Your task to perform on an android device: Open Youtube and go to the subscriptions tab Image 0: 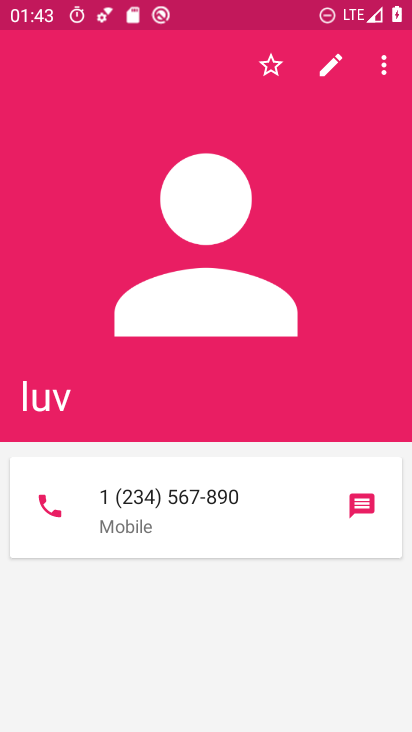
Step 0: press home button
Your task to perform on an android device: Open Youtube and go to the subscriptions tab Image 1: 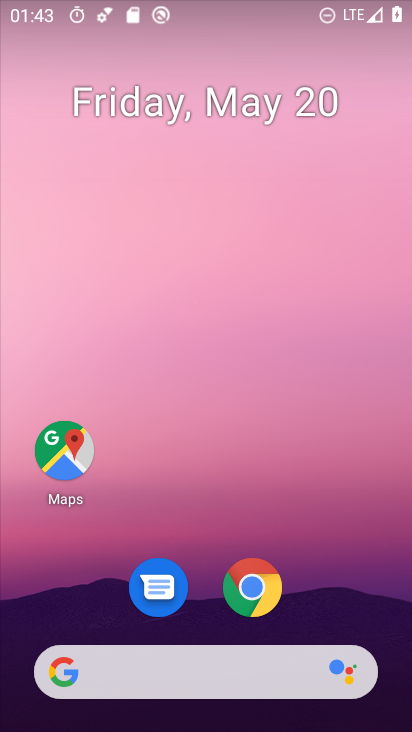
Step 1: drag from (389, 584) to (389, 265)
Your task to perform on an android device: Open Youtube and go to the subscriptions tab Image 2: 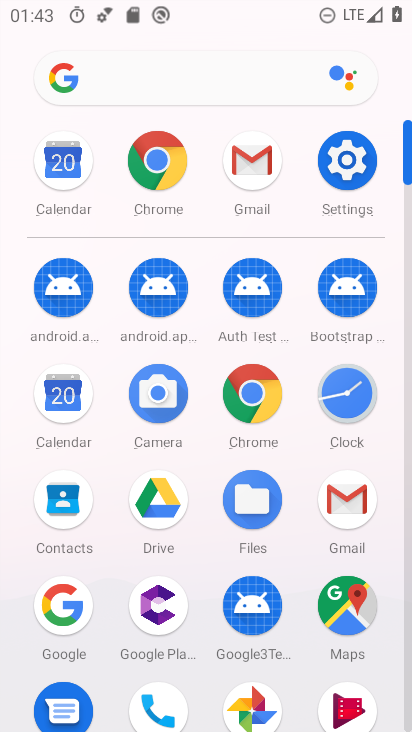
Step 2: drag from (390, 614) to (383, 307)
Your task to perform on an android device: Open Youtube and go to the subscriptions tab Image 3: 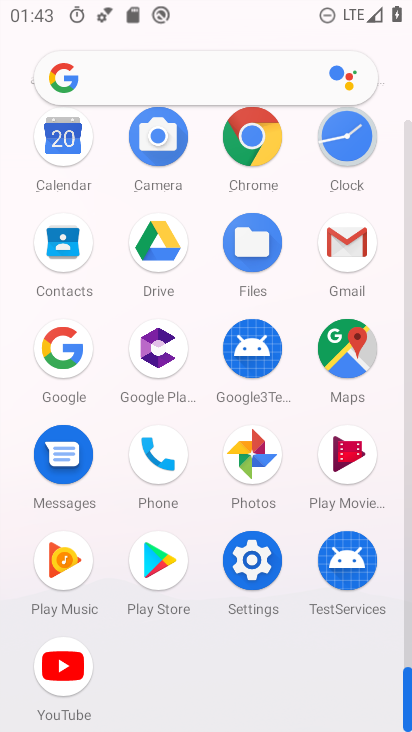
Step 3: click (65, 677)
Your task to perform on an android device: Open Youtube and go to the subscriptions tab Image 4: 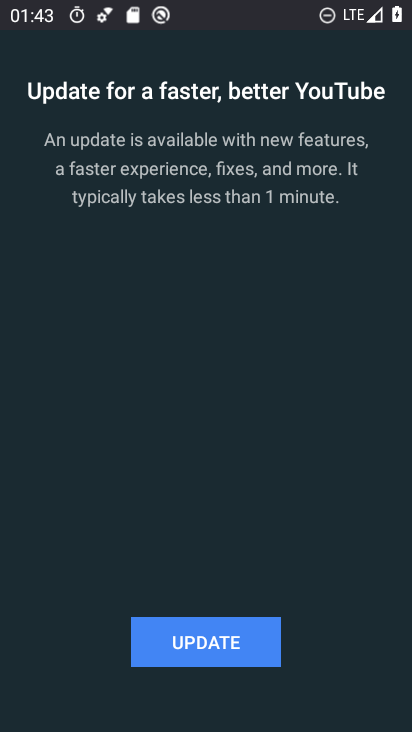
Step 4: click (178, 667)
Your task to perform on an android device: Open Youtube and go to the subscriptions tab Image 5: 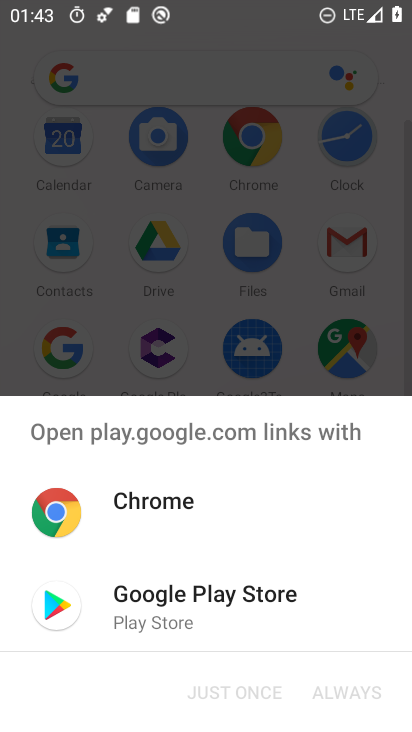
Step 5: click (172, 608)
Your task to perform on an android device: Open Youtube and go to the subscriptions tab Image 6: 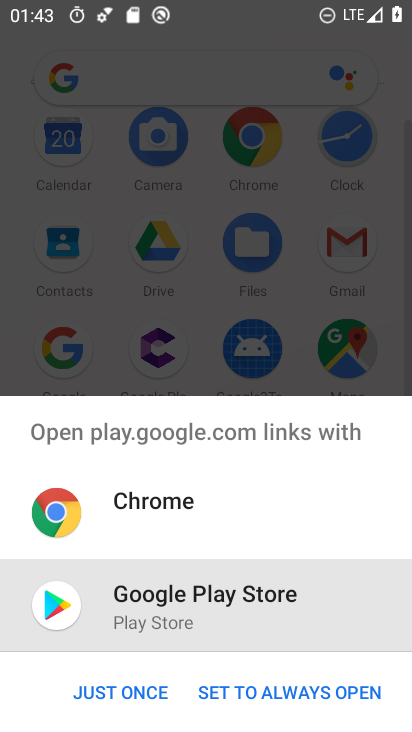
Step 6: click (128, 705)
Your task to perform on an android device: Open Youtube and go to the subscriptions tab Image 7: 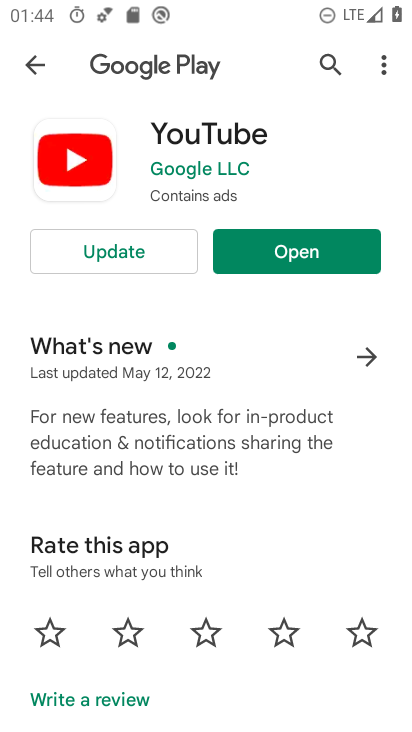
Step 7: click (138, 246)
Your task to perform on an android device: Open Youtube and go to the subscriptions tab Image 8: 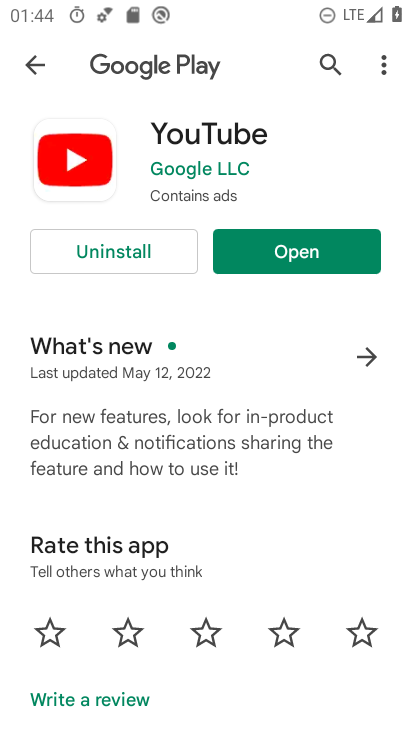
Step 8: click (327, 250)
Your task to perform on an android device: Open Youtube and go to the subscriptions tab Image 9: 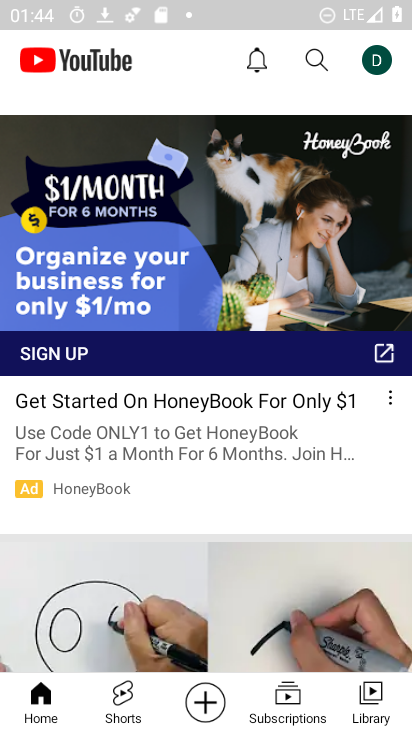
Step 9: click (305, 705)
Your task to perform on an android device: Open Youtube and go to the subscriptions tab Image 10: 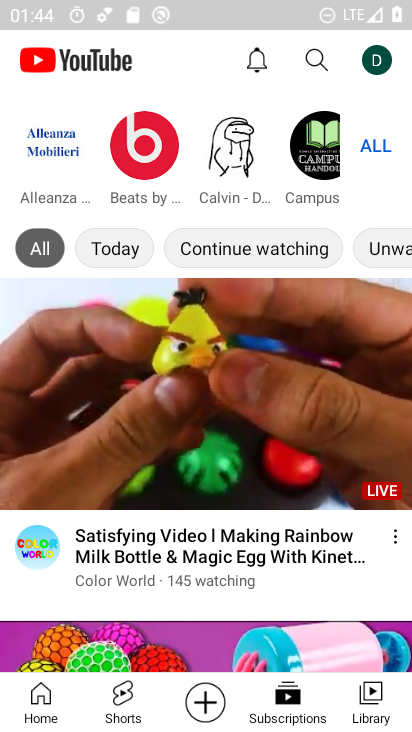
Step 10: task complete